Your task to perform on an android device: Open Amazon Image 0: 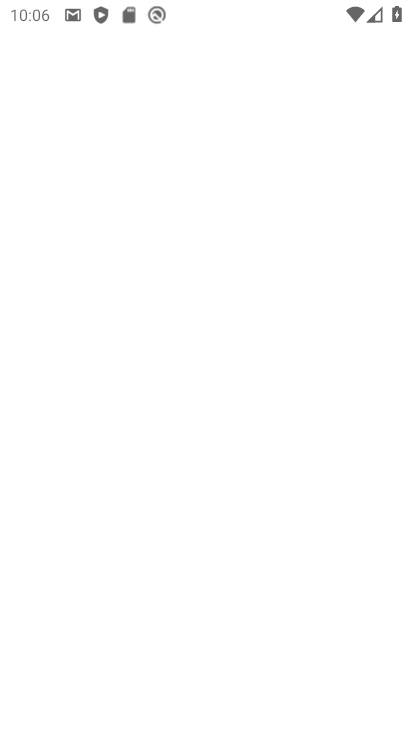
Step 0: press home button
Your task to perform on an android device: Open Amazon Image 1: 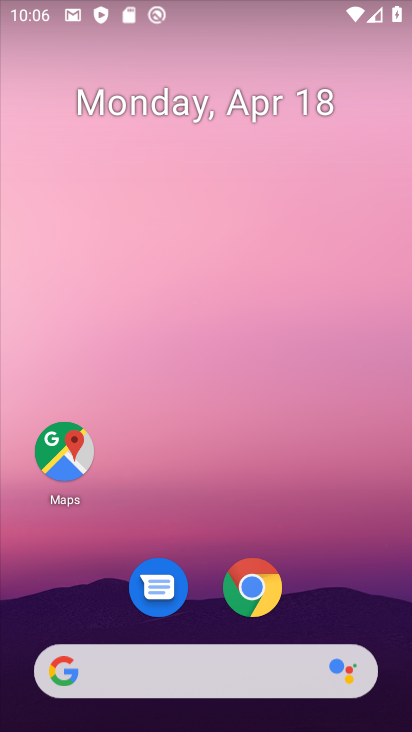
Step 1: click (283, 586)
Your task to perform on an android device: Open Amazon Image 2: 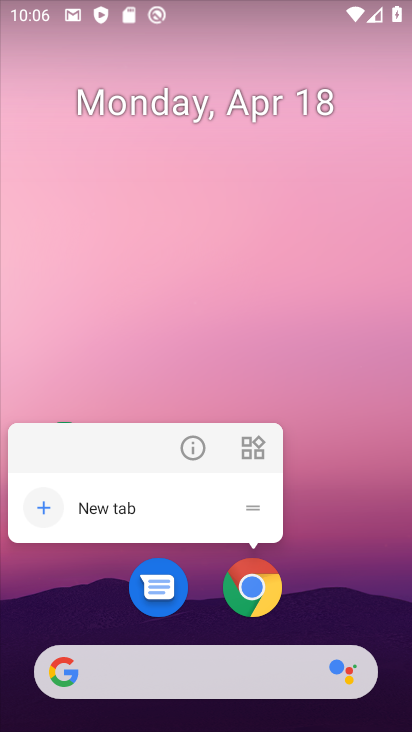
Step 2: click (248, 585)
Your task to perform on an android device: Open Amazon Image 3: 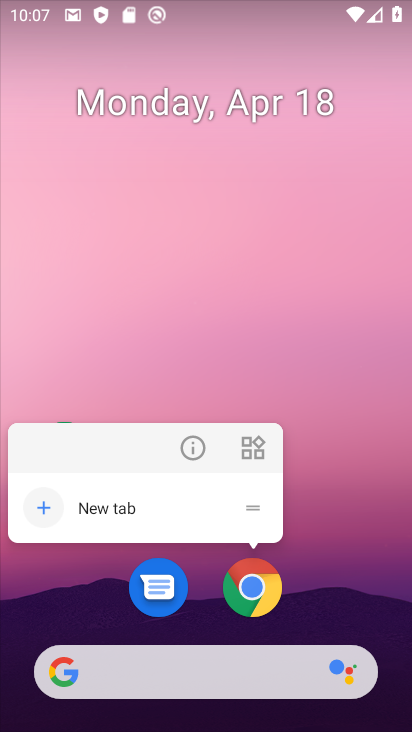
Step 3: click (252, 580)
Your task to perform on an android device: Open Amazon Image 4: 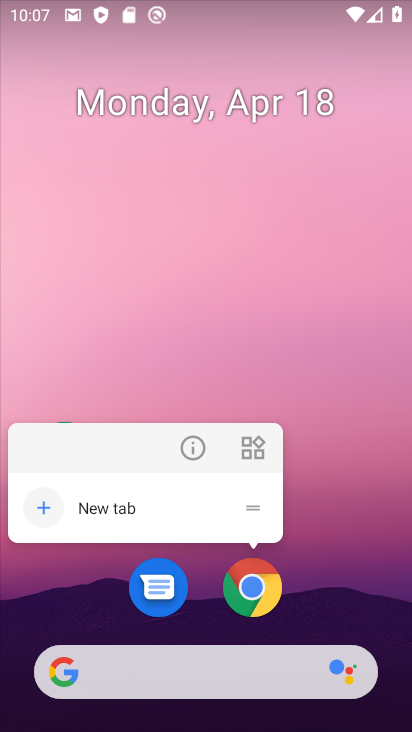
Step 4: click (249, 584)
Your task to perform on an android device: Open Amazon Image 5: 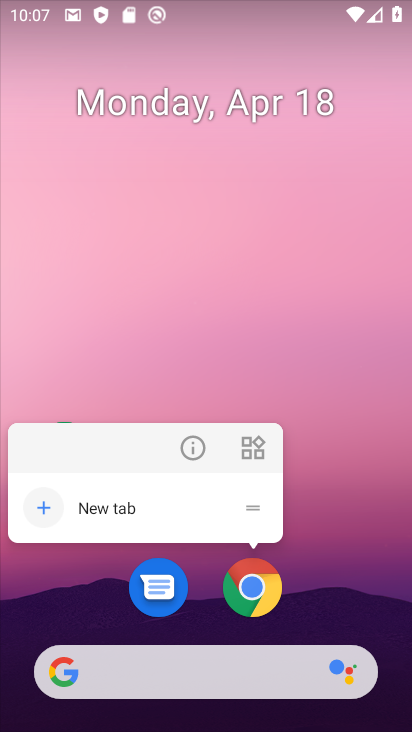
Step 5: click (255, 584)
Your task to perform on an android device: Open Amazon Image 6: 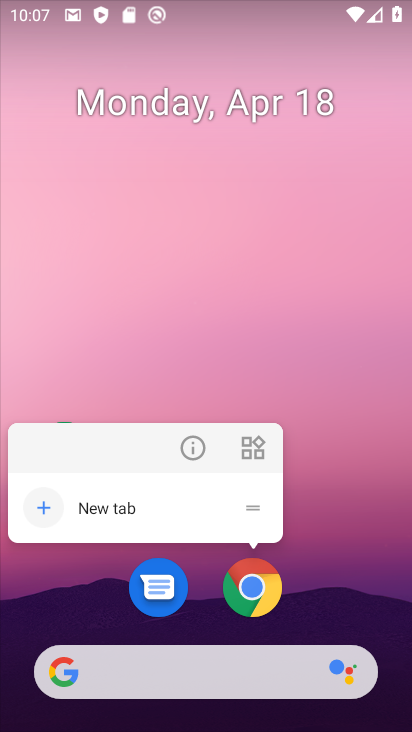
Step 6: click (263, 579)
Your task to perform on an android device: Open Amazon Image 7: 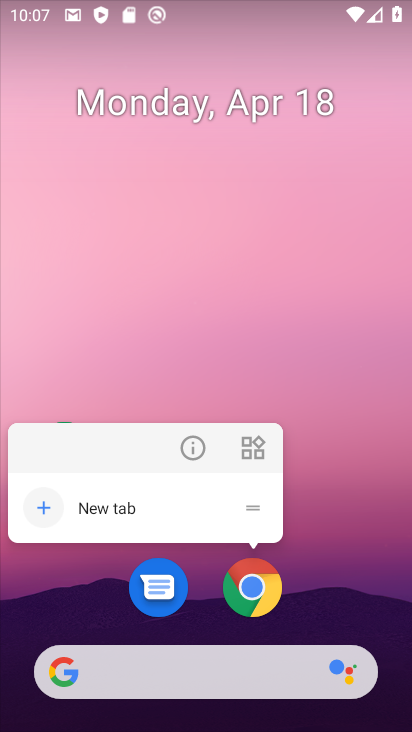
Step 7: click (263, 579)
Your task to perform on an android device: Open Amazon Image 8: 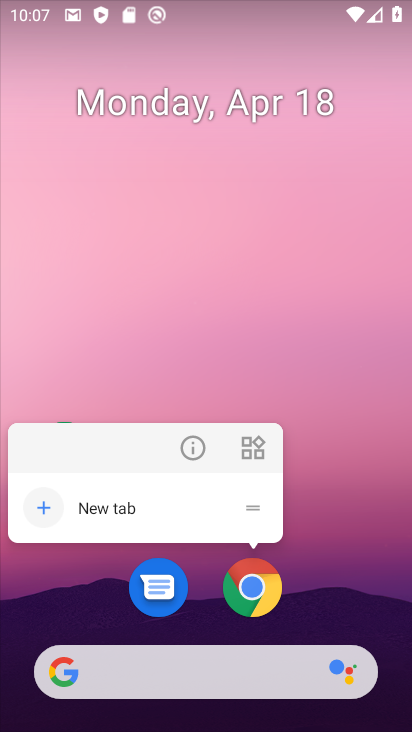
Step 8: click (259, 588)
Your task to perform on an android device: Open Amazon Image 9: 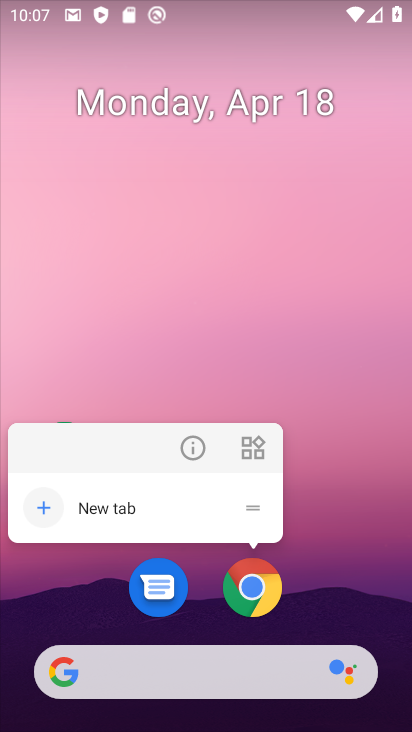
Step 9: drag from (325, 615) to (309, 52)
Your task to perform on an android device: Open Amazon Image 10: 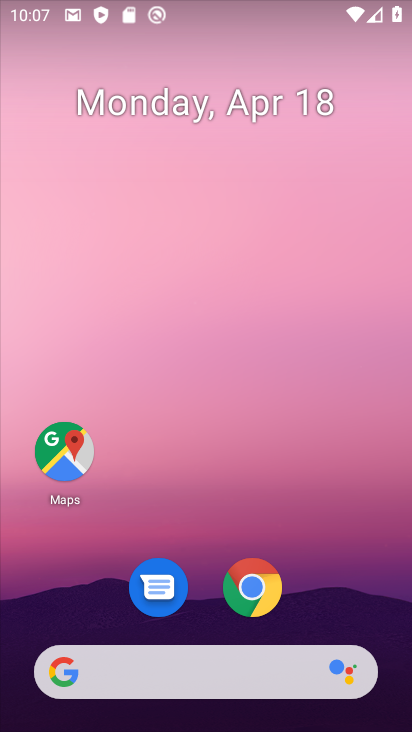
Step 10: drag from (194, 634) to (215, 0)
Your task to perform on an android device: Open Amazon Image 11: 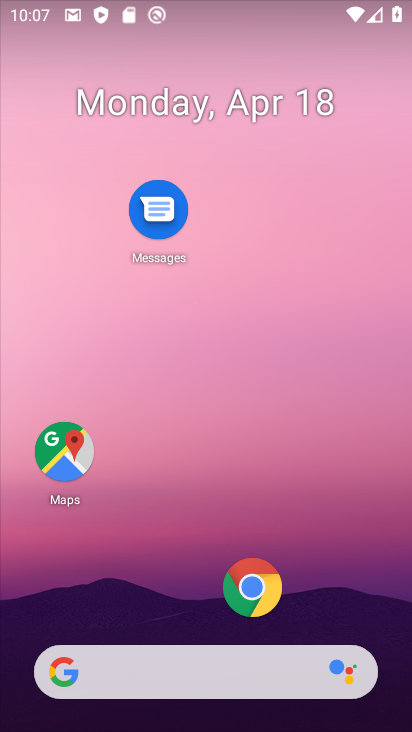
Step 11: drag from (178, 612) to (190, 9)
Your task to perform on an android device: Open Amazon Image 12: 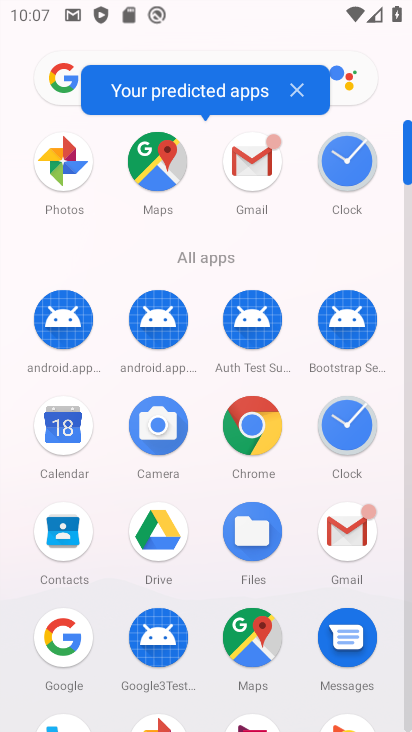
Step 12: click (254, 424)
Your task to perform on an android device: Open Amazon Image 13: 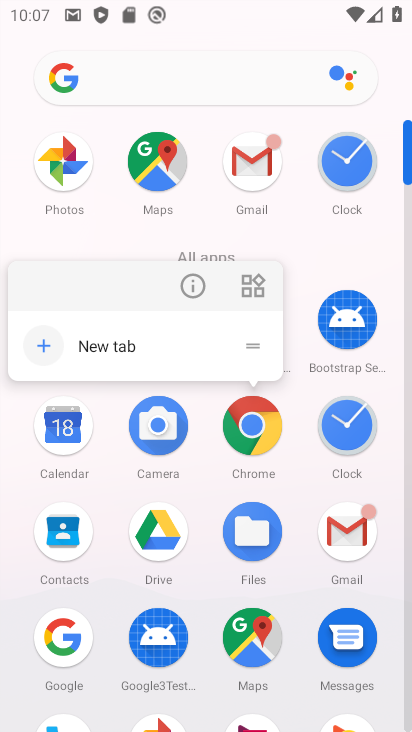
Step 13: click (259, 421)
Your task to perform on an android device: Open Amazon Image 14: 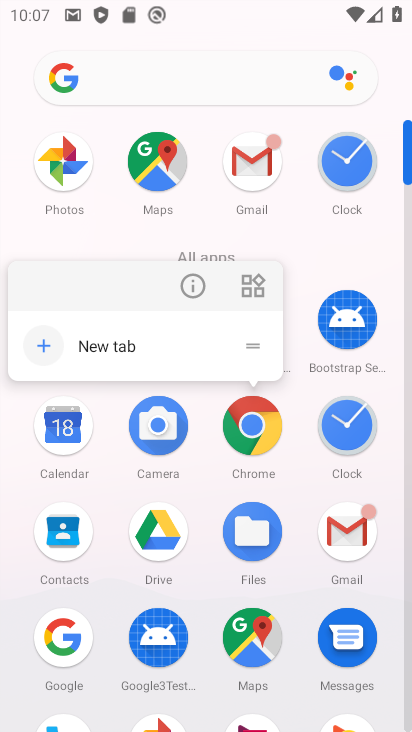
Step 14: click (258, 420)
Your task to perform on an android device: Open Amazon Image 15: 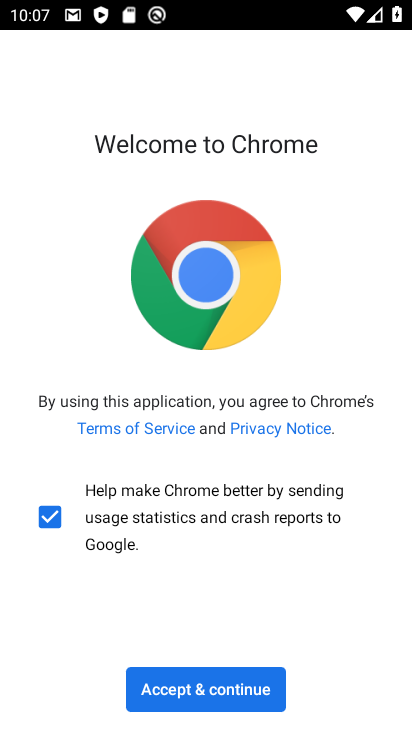
Step 15: click (244, 688)
Your task to perform on an android device: Open Amazon Image 16: 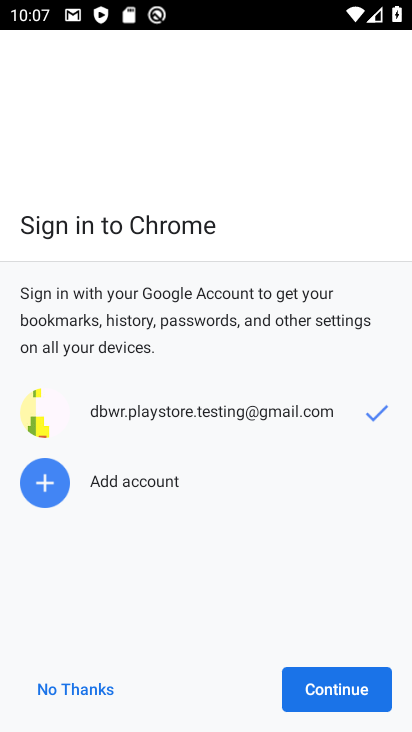
Step 16: click (376, 704)
Your task to perform on an android device: Open Amazon Image 17: 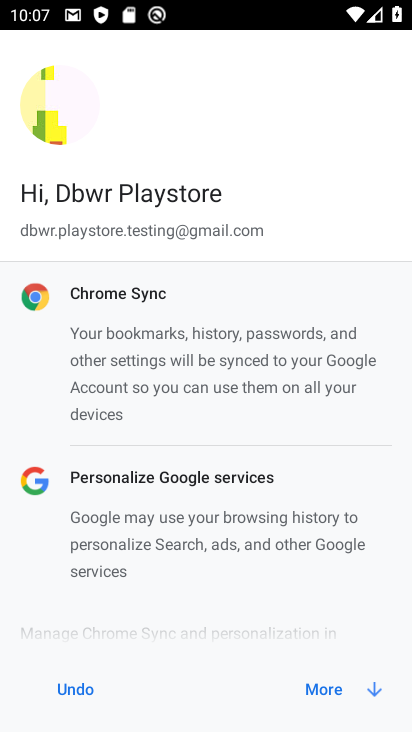
Step 17: click (337, 695)
Your task to perform on an android device: Open Amazon Image 18: 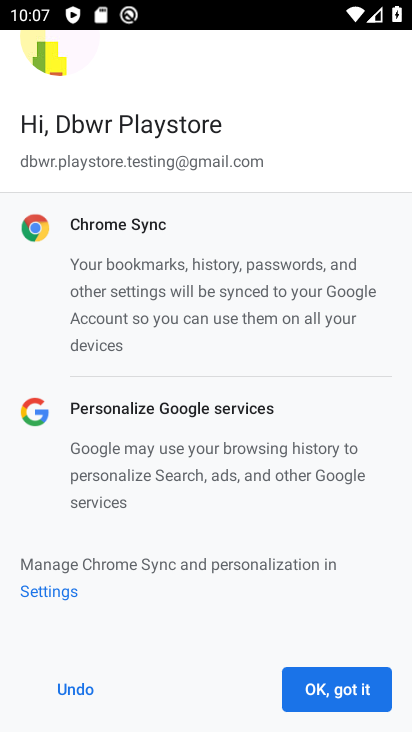
Step 18: click (342, 699)
Your task to perform on an android device: Open Amazon Image 19: 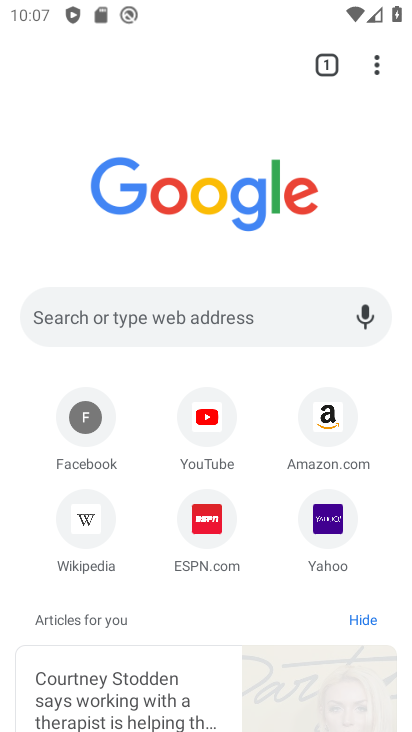
Step 19: click (332, 428)
Your task to perform on an android device: Open Amazon Image 20: 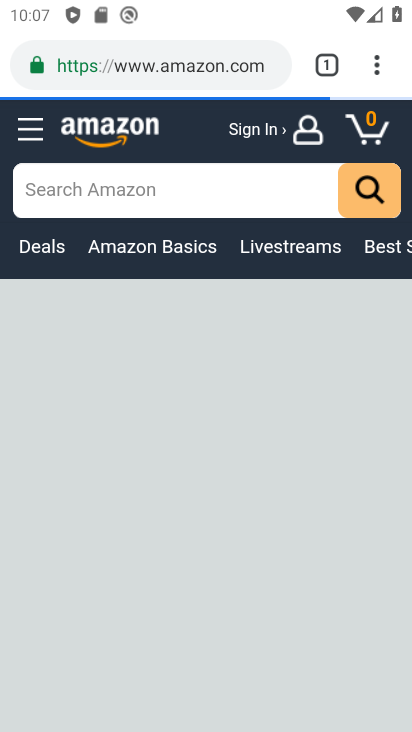
Step 20: task complete